Your task to perform on an android device: Open maps Image 0: 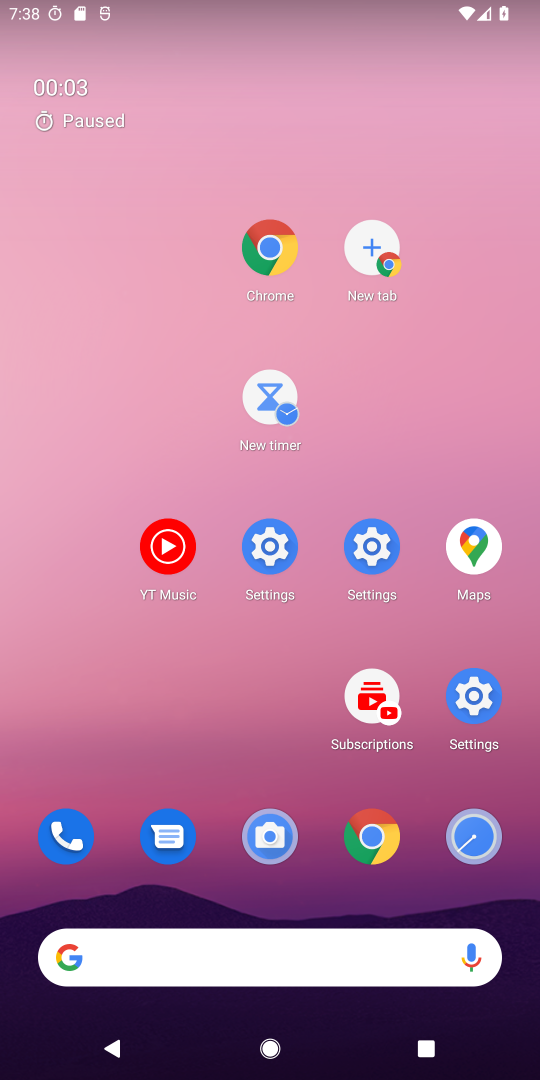
Step 0: drag from (208, 262) to (177, 119)
Your task to perform on an android device: Open maps Image 1: 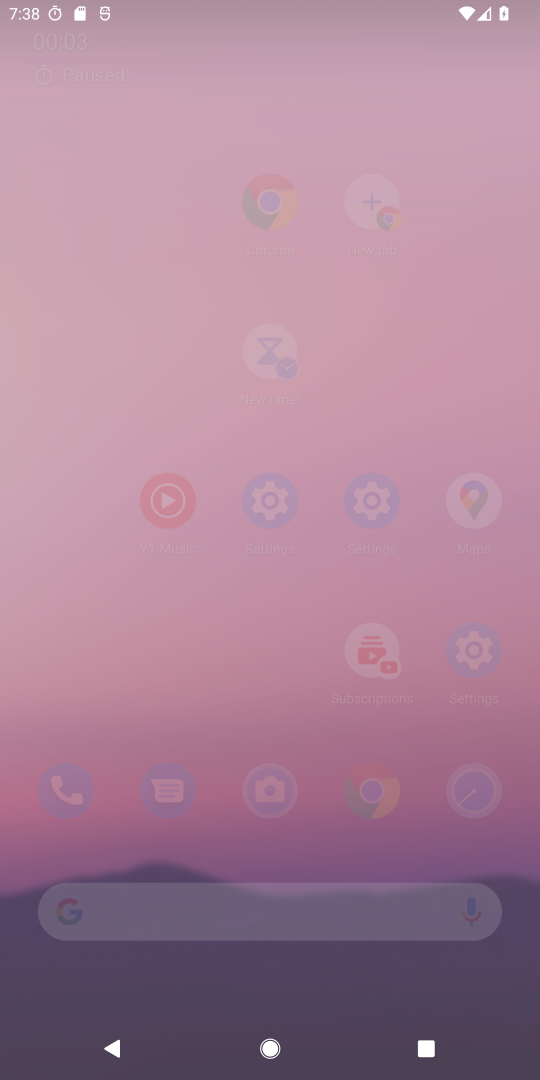
Step 1: drag from (362, 729) to (321, 94)
Your task to perform on an android device: Open maps Image 2: 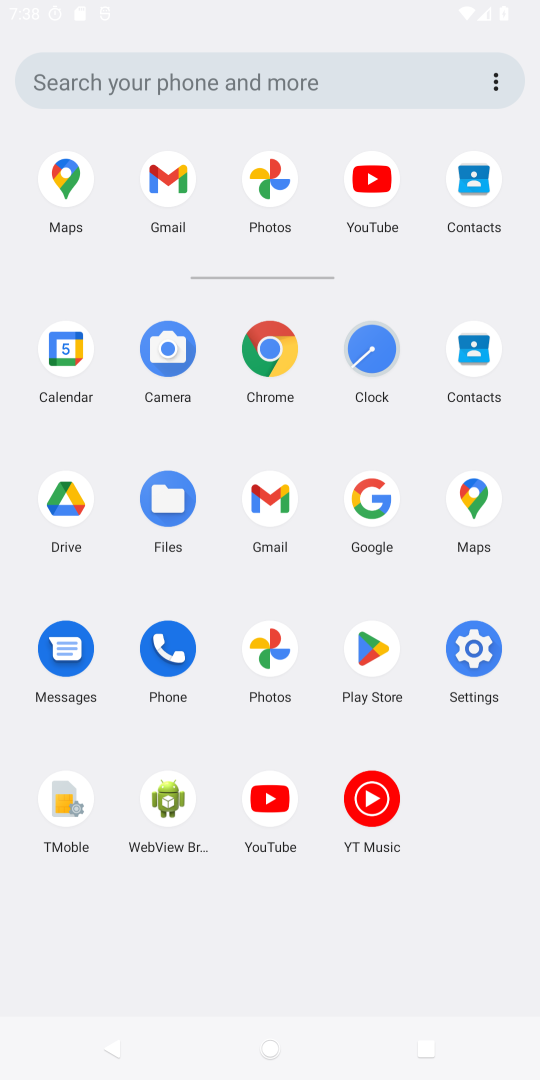
Step 2: drag from (378, 754) to (322, 186)
Your task to perform on an android device: Open maps Image 3: 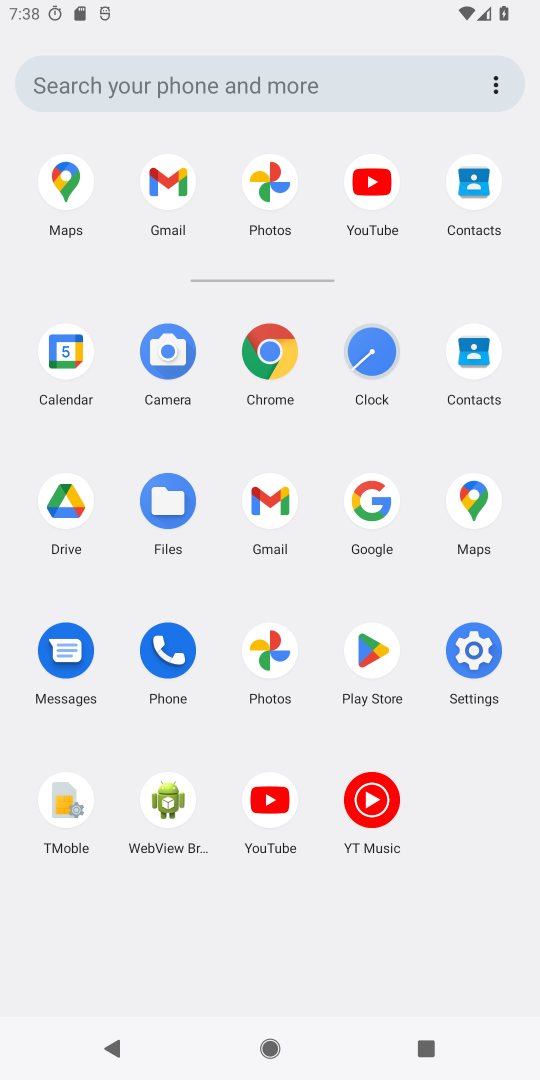
Step 3: click (476, 501)
Your task to perform on an android device: Open maps Image 4: 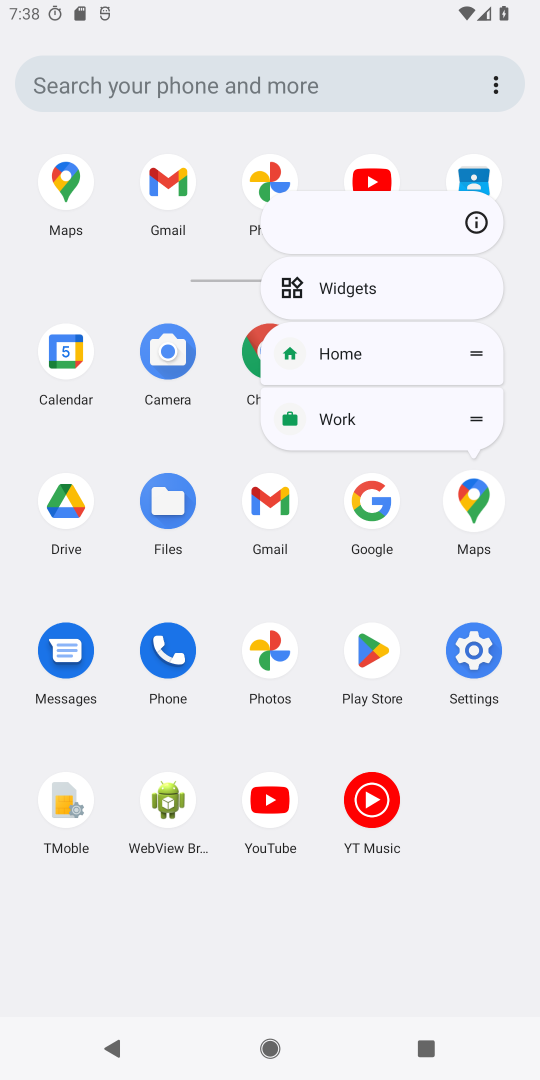
Step 4: click (477, 501)
Your task to perform on an android device: Open maps Image 5: 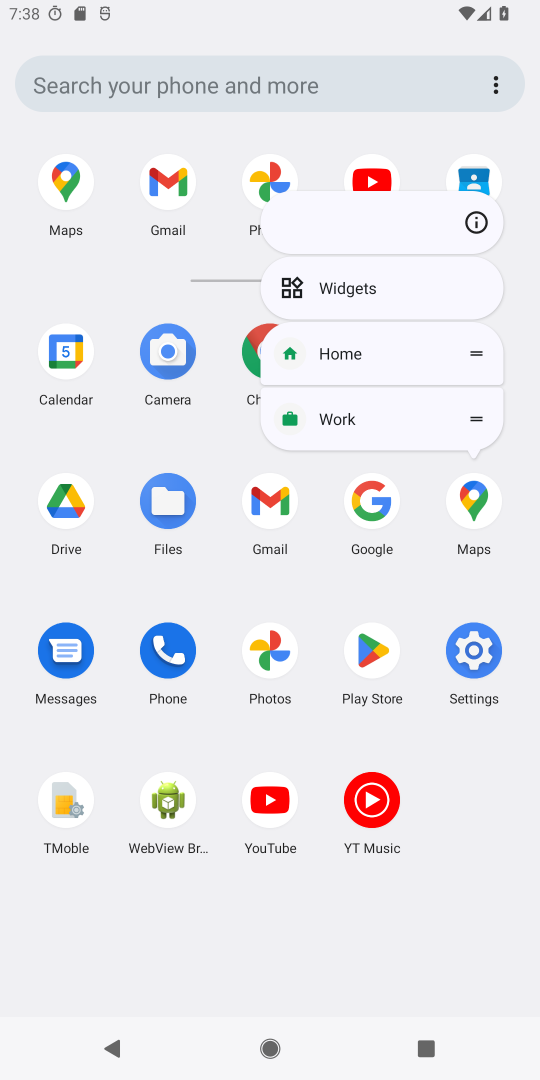
Step 5: click (481, 500)
Your task to perform on an android device: Open maps Image 6: 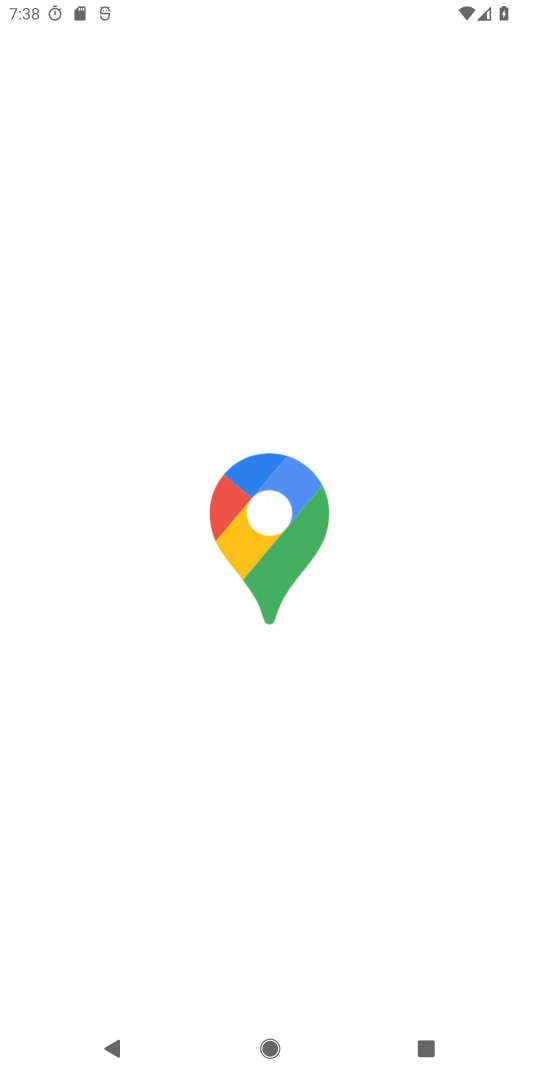
Step 6: click (475, 503)
Your task to perform on an android device: Open maps Image 7: 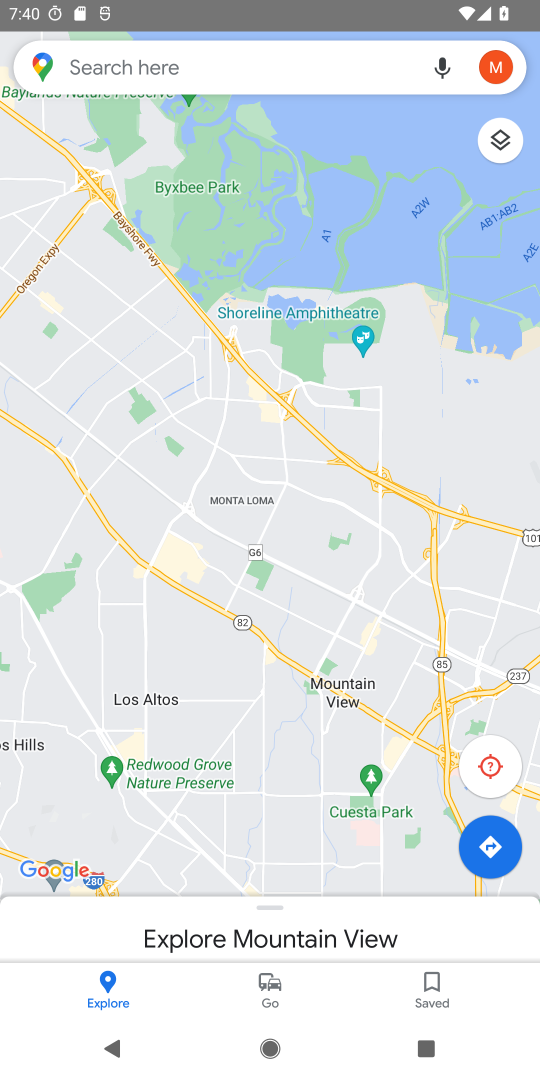
Step 7: task complete